Your task to perform on an android device: Open Google Maps and go to "Timeline" Image 0: 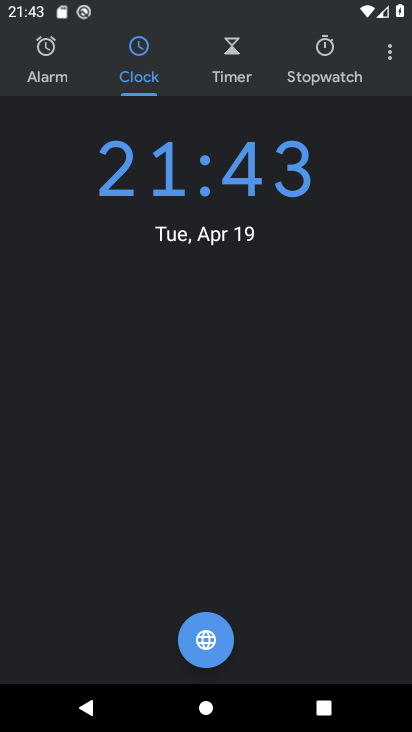
Step 0: press back button
Your task to perform on an android device: Open Google Maps and go to "Timeline" Image 1: 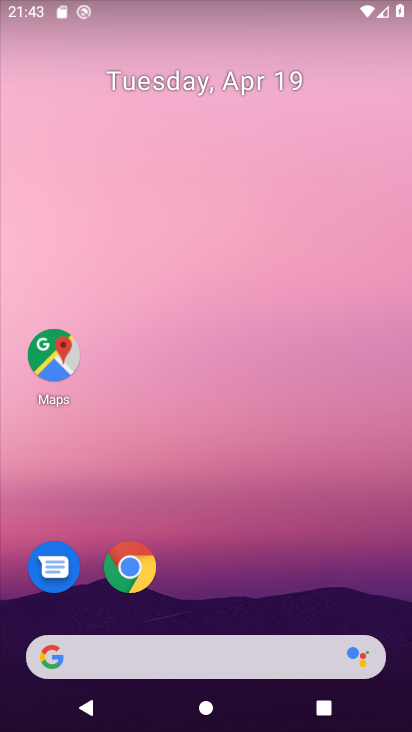
Step 1: drag from (226, 603) to (274, 28)
Your task to perform on an android device: Open Google Maps and go to "Timeline" Image 2: 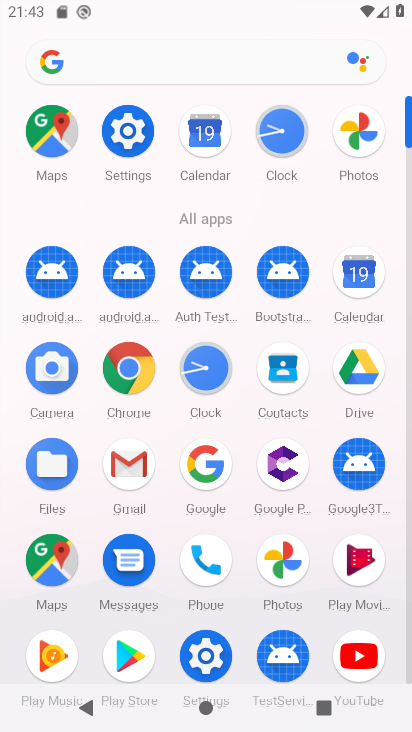
Step 2: click (49, 117)
Your task to perform on an android device: Open Google Maps and go to "Timeline" Image 3: 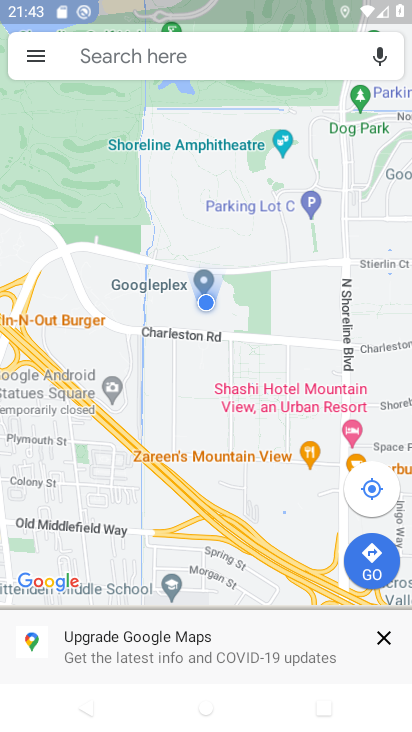
Step 3: click (30, 53)
Your task to perform on an android device: Open Google Maps and go to "Timeline" Image 4: 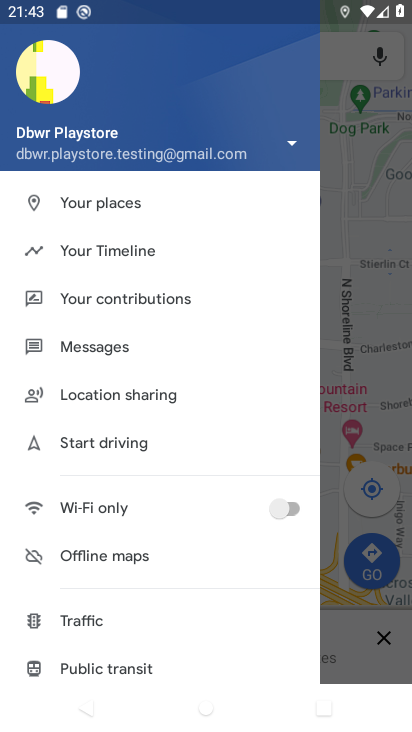
Step 4: click (85, 251)
Your task to perform on an android device: Open Google Maps and go to "Timeline" Image 5: 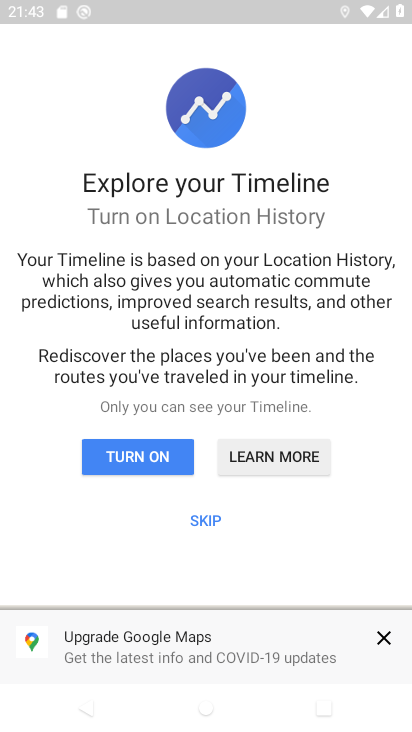
Step 5: click (199, 513)
Your task to perform on an android device: Open Google Maps and go to "Timeline" Image 6: 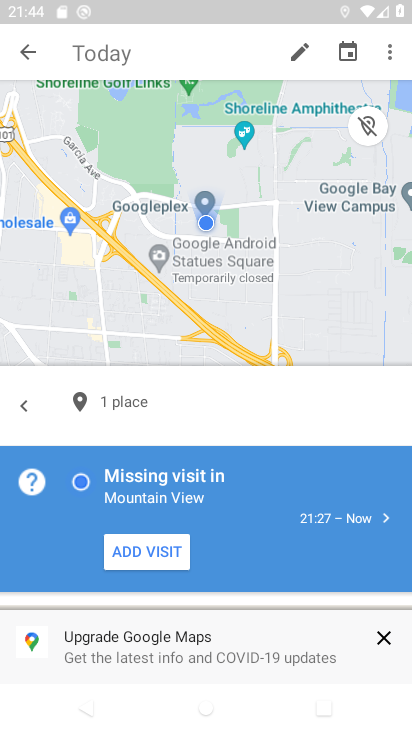
Step 6: task complete